Your task to perform on an android device: Go to display settings Image 0: 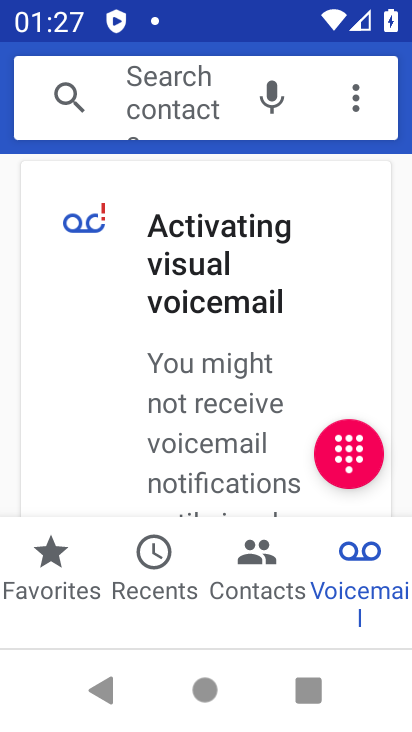
Step 0: press home button
Your task to perform on an android device: Go to display settings Image 1: 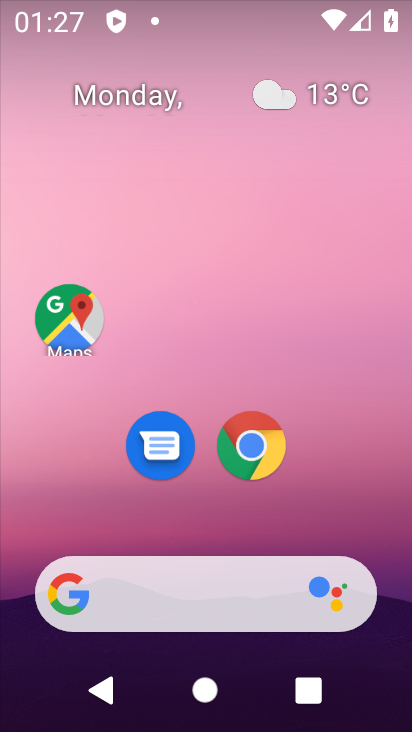
Step 1: drag from (114, 104) to (105, 39)
Your task to perform on an android device: Go to display settings Image 2: 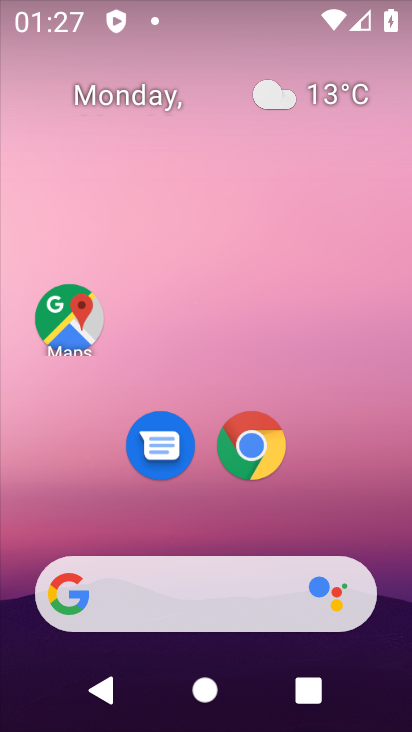
Step 2: drag from (214, 443) to (267, 50)
Your task to perform on an android device: Go to display settings Image 3: 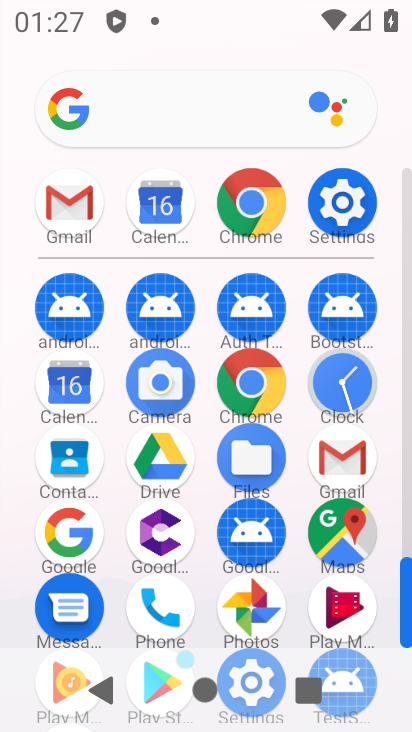
Step 3: click (344, 203)
Your task to perform on an android device: Go to display settings Image 4: 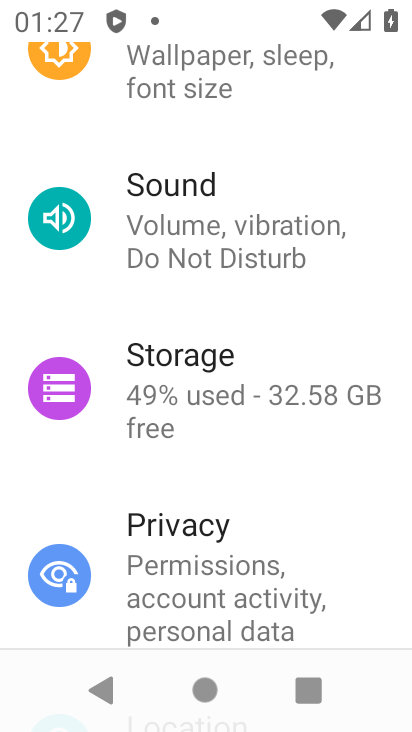
Step 4: drag from (215, 197) to (193, 622)
Your task to perform on an android device: Go to display settings Image 5: 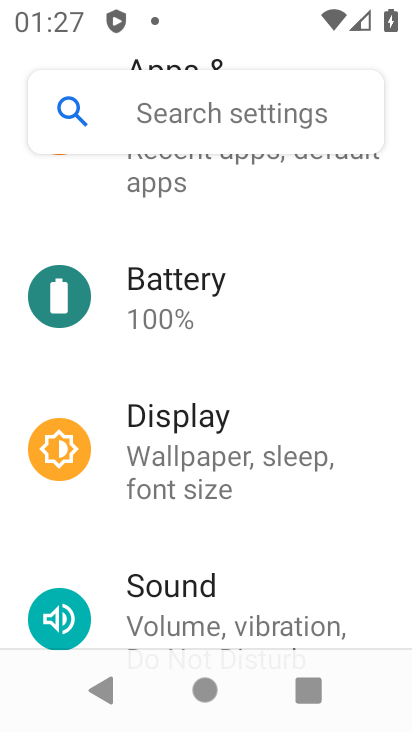
Step 5: drag from (190, 379) to (187, 477)
Your task to perform on an android device: Go to display settings Image 6: 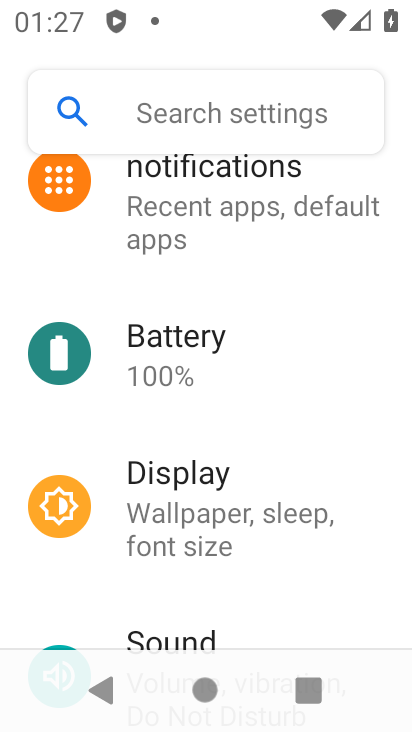
Step 6: click (182, 517)
Your task to perform on an android device: Go to display settings Image 7: 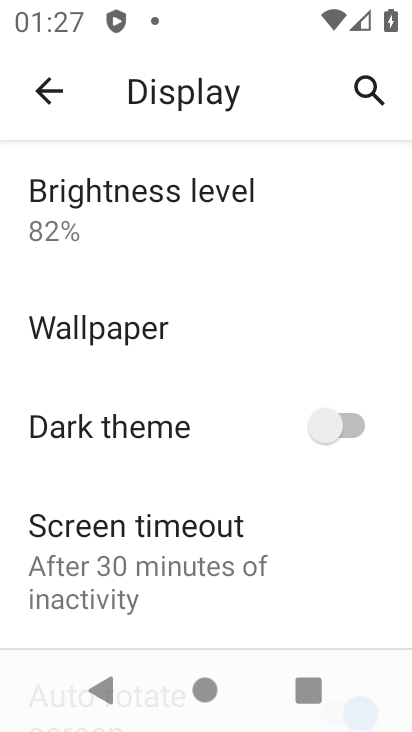
Step 7: click (254, 173)
Your task to perform on an android device: Go to display settings Image 8: 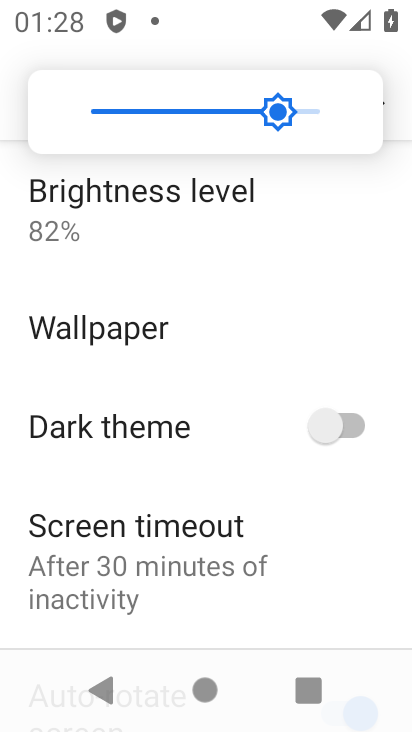
Step 8: task complete